Your task to perform on an android device: When is my next appointment? Image 0: 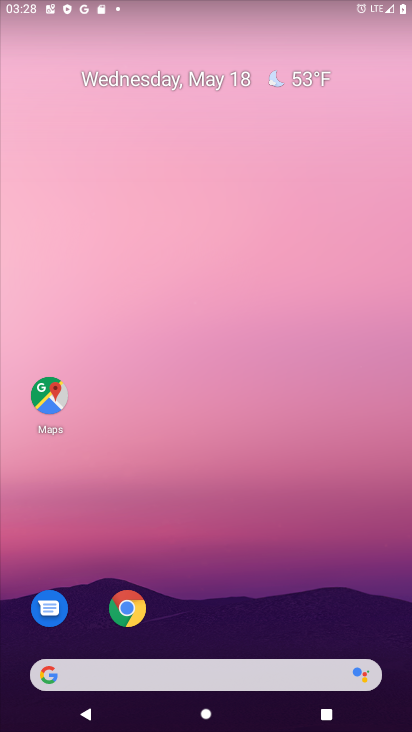
Step 0: drag from (247, 569) to (258, 0)
Your task to perform on an android device: When is my next appointment? Image 1: 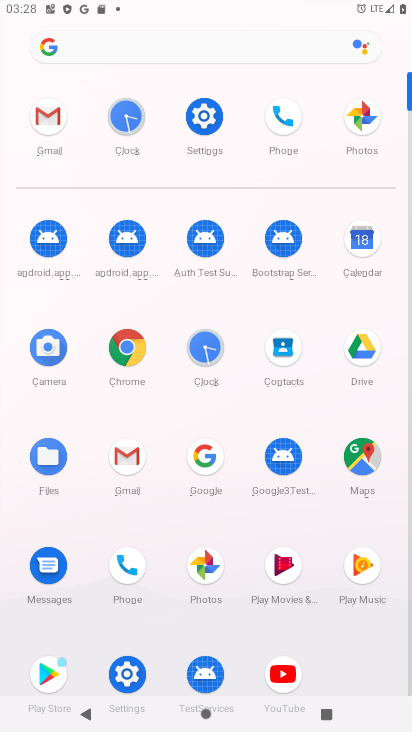
Step 1: click (362, 243)
Your task to perform on an android device: When is my next appointment? Image 2: 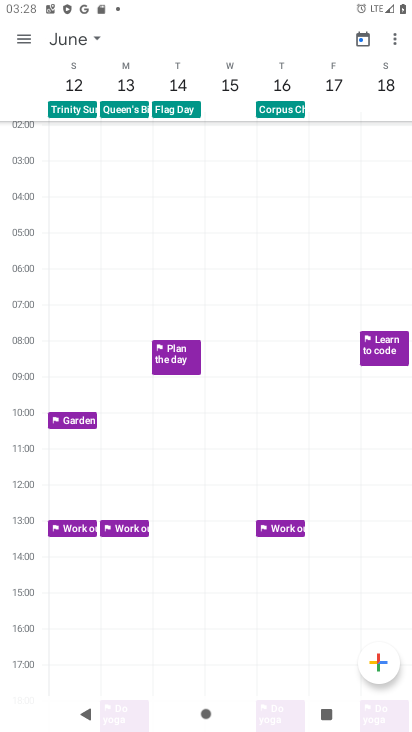
Step 2: click (362, 45)
Your task to perform on an android device: When is my next appointment? Image 3: 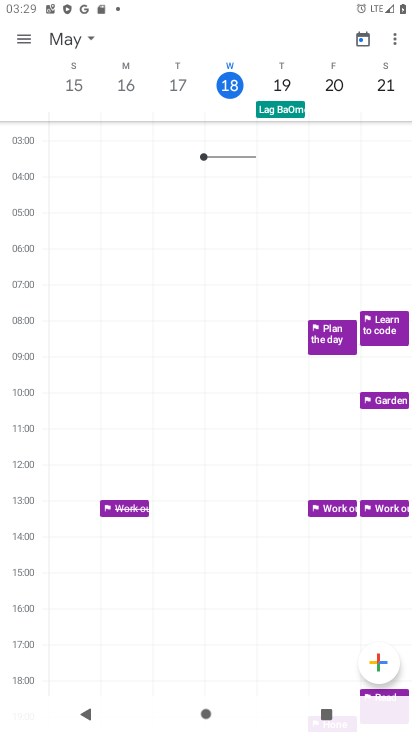
Step 3: click (29, 34)
Your task to perform on an android device: When is my next appointment? Image 4: 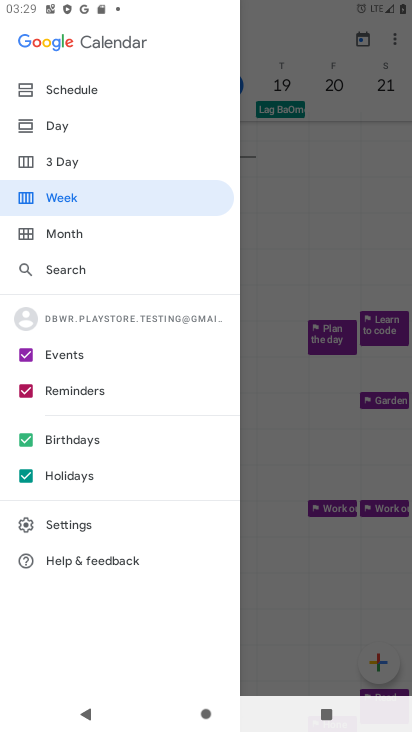
Step 4: click (45, 88)
Your task to perform on an android device: When is my next appointment? Image 5: 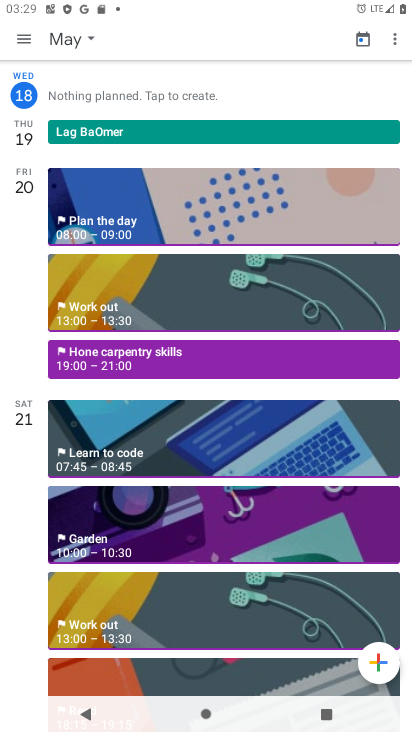
Step 5: click (170, 360)
Your task to perform on an android device: When is my next appointment? Image 6: 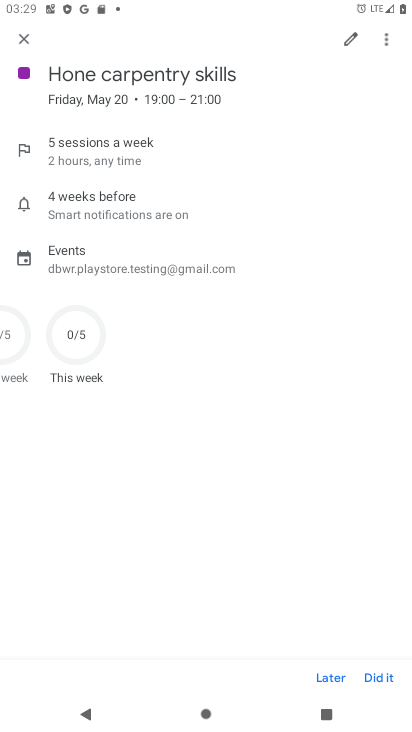
Step 6: task complete